Your task to perform on an android device: make emails show in primary in the gmail app Image 0: 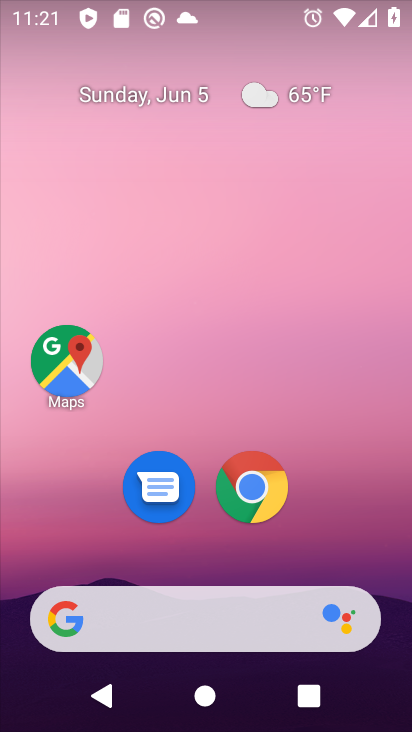
Step 0: drag from (348, 541) to (243, 38)
Your task to perform on an android device: make emails show in primary in the gmail app Image 1: 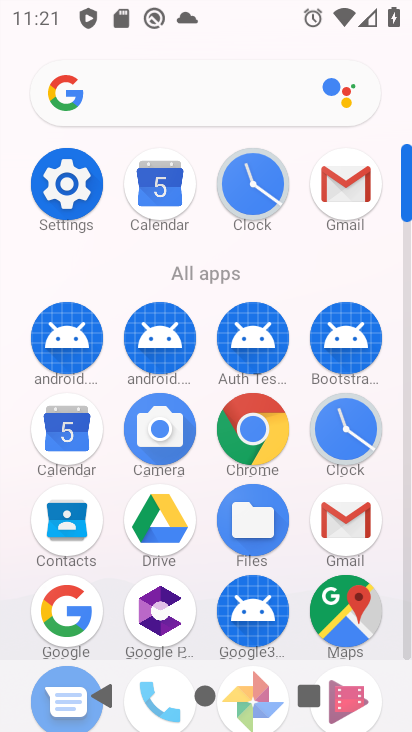
Step 1: click (344, 183)
Your task to perform on an android device: make emails show in primary in the gmail app Image 2: 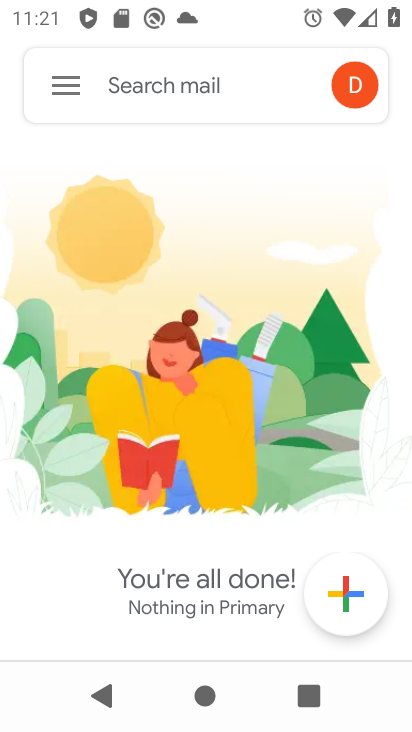
Step 2: click (67, 86)
Your task to perform on an android device: make emails show in primary in the gmail app Image 3: 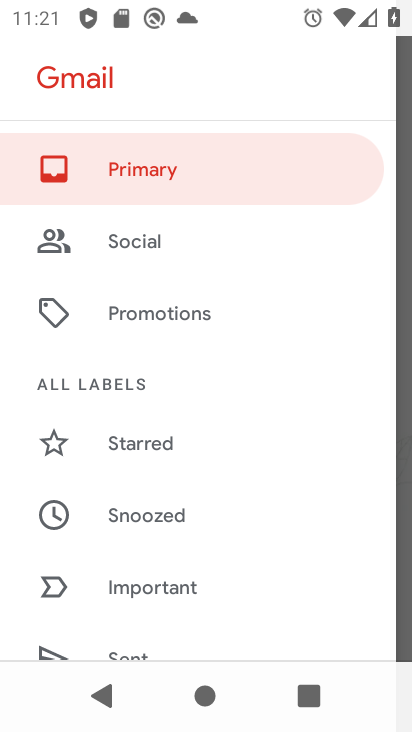
Step 3: click (143, 177)
Your task to perform on an android device: make emails show in primary in the gmail app Image 4: 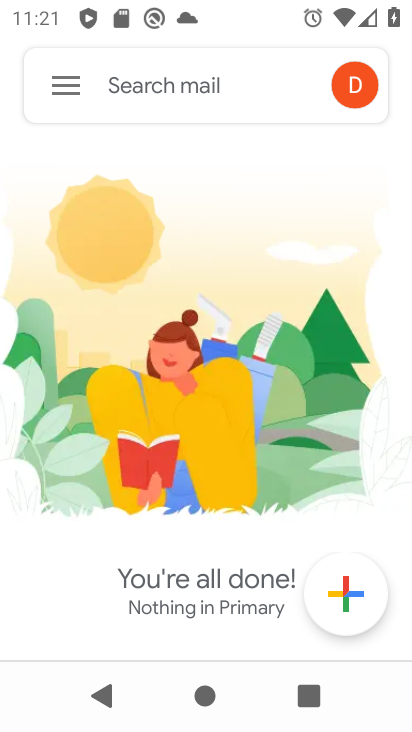
Step 4: task complete